Your task to perform on an android device: toggle data saver in the chrome app Image 0: 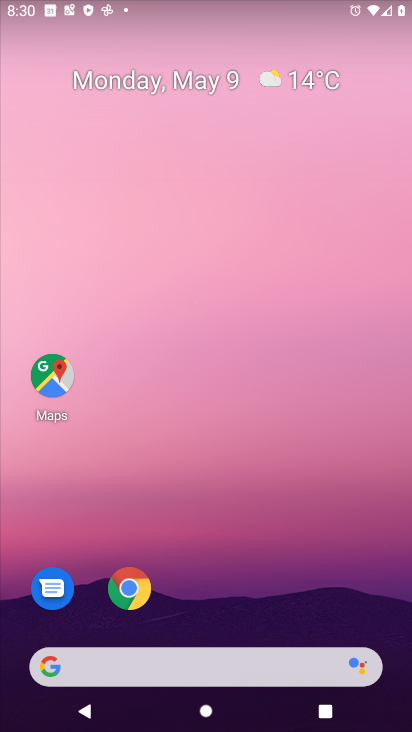
Step 0: drag from (365, 610) to (188, 70)
Your task to perform on an android device: toggle data saver in the chrome app Image 1: 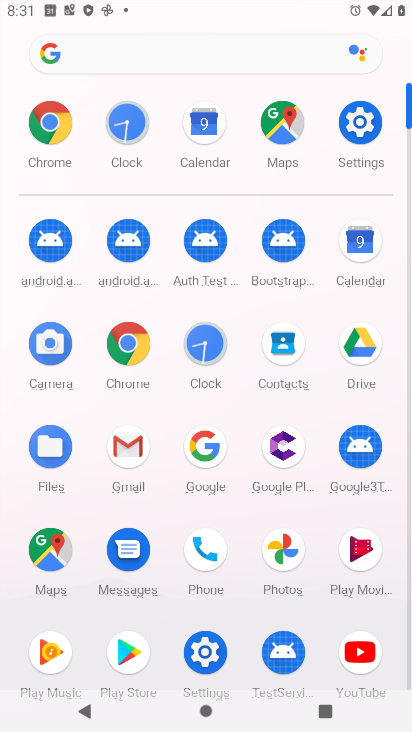
Step 1: click (126, 358)
Your task to perform on an android device: toggle data saver in the chrome app Image 2: 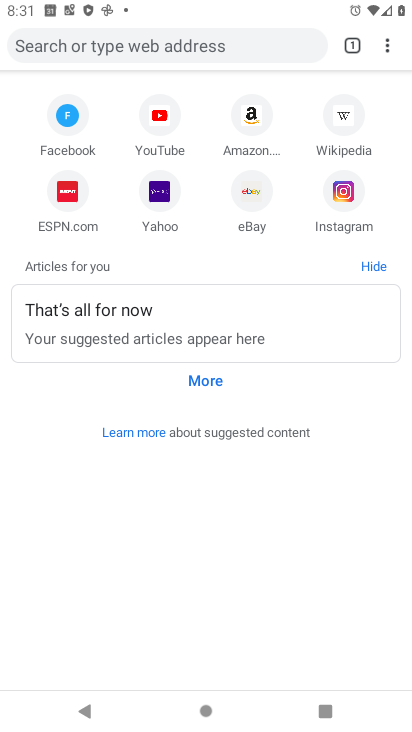
Step 2: click (386, 39)
Your task to perform on an android device: toggle data saver in the chrome app Image 3: 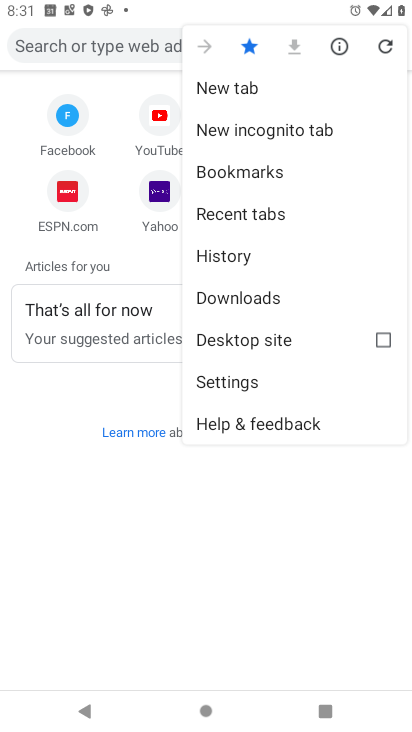
Step 3: click (248, 391)
Your task to perform on an android device: toggle data saver in the chrome app Image 4: 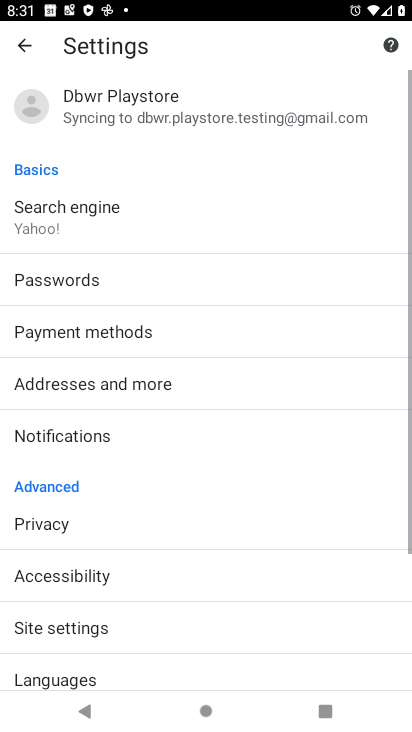
Step 4: drag from (94, 661) to (124, 284)
Your task to perform on an android device: toggle data saver in the chrome app Image 5: 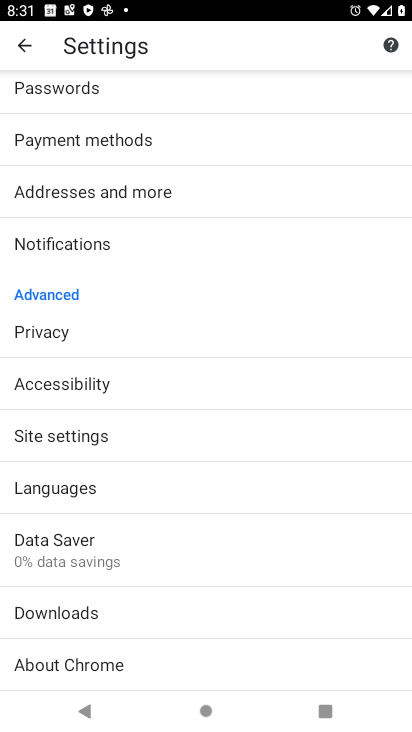
Step 5: click (105, 540)
Your task to perform on an android device: toggle data saver in the chrome app Image 6: 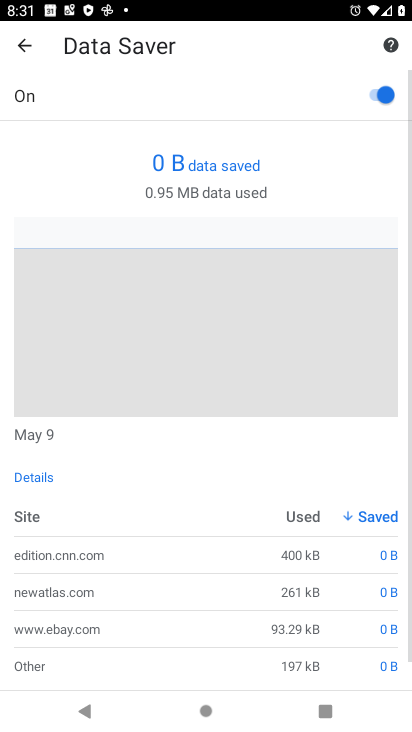
Step 6: click (350, 96)
Your task to perform on an android device: toggle data saver in the chrome app Image 7: 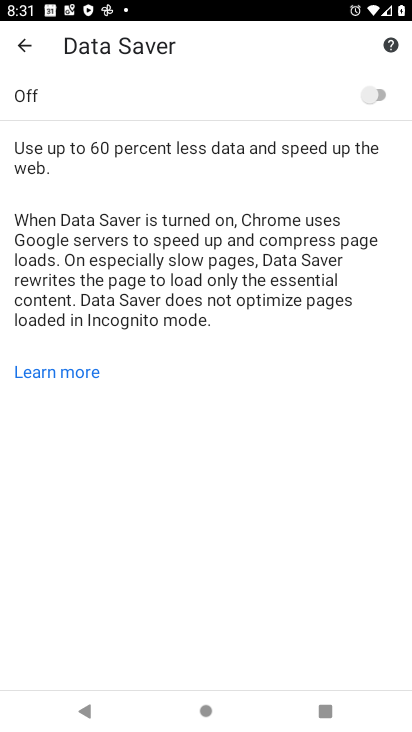
Step 7: task complete